Your task to perform on an android device: Open privacy settings Image 0: 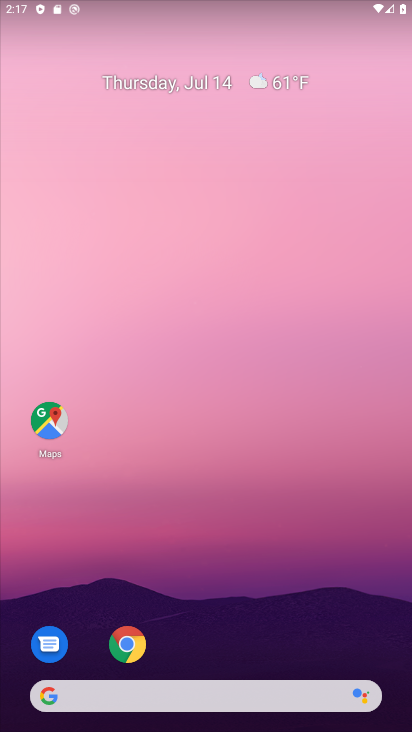
Step 0: drag from (309, 637) to (197, 63)
Your task to perform on an android device: Open privacy settings Image 1: 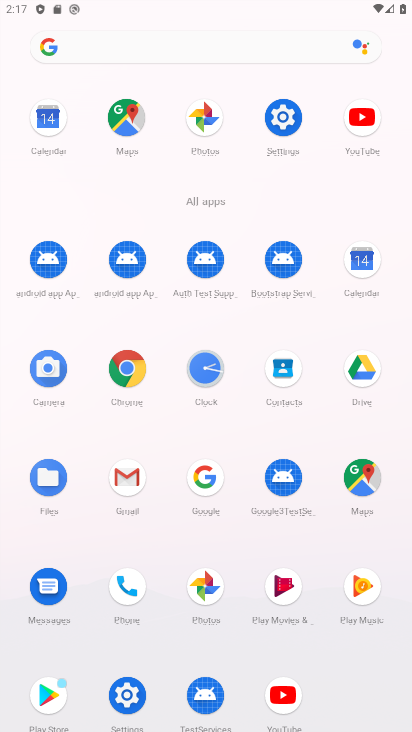
Step 1: click (119, 692)
Your task to perform on an android device: Open privacy settings Image 2: 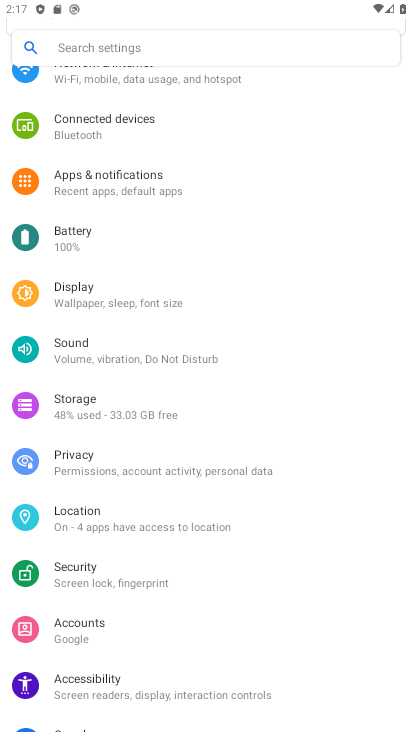
Step 2: click (99, 468)
Your task to perform on an android device: Open privacy settings Image 3: 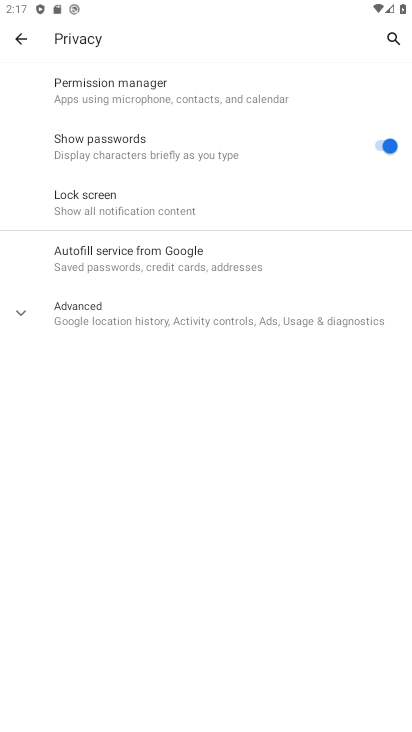
Step 3: task complete